Your task to perform on an android device: Open accessibility settings Image 0: 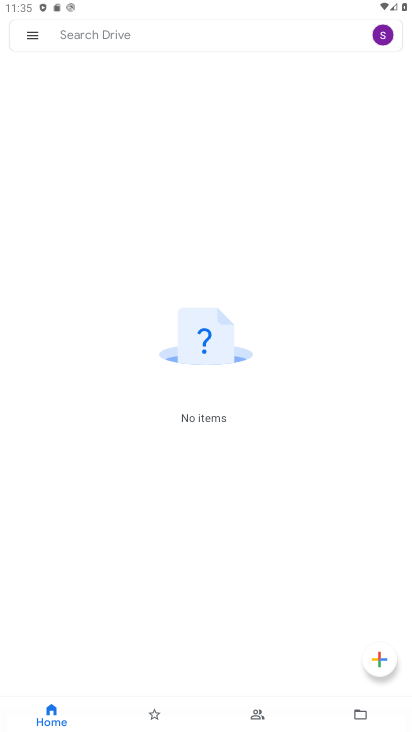
Step 0: press home button
Your task to perform on an android device: Open accessibility settings Image 1: 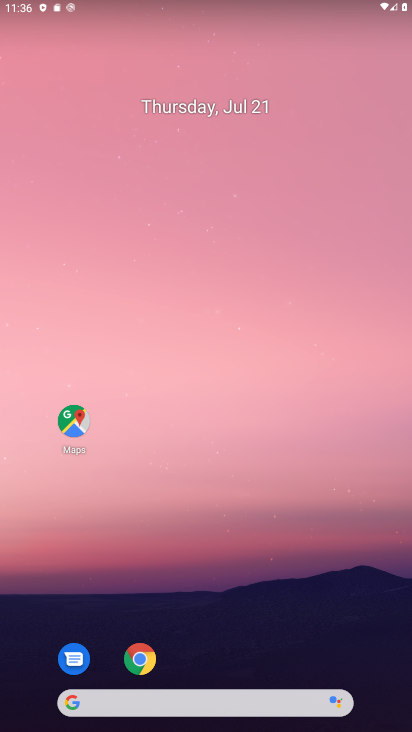
Step 1: drag from (308, 612) to (254, 116)
Your task to perform on an android device: Open accessibility settings Image 2: 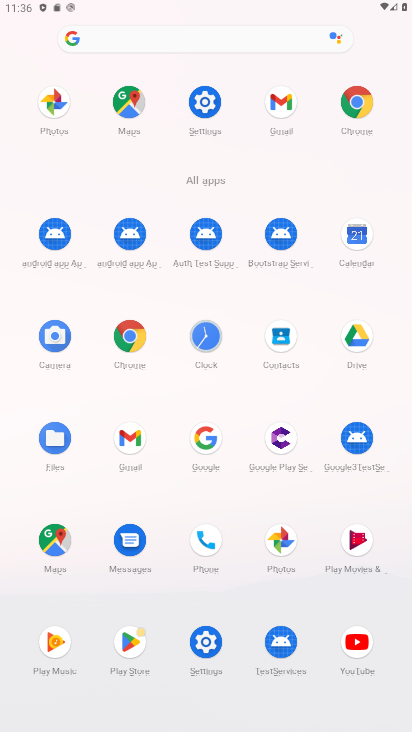
Step 2: click (218, 111)
Your task to perform on an android device: Open accessibility settings Image 3: 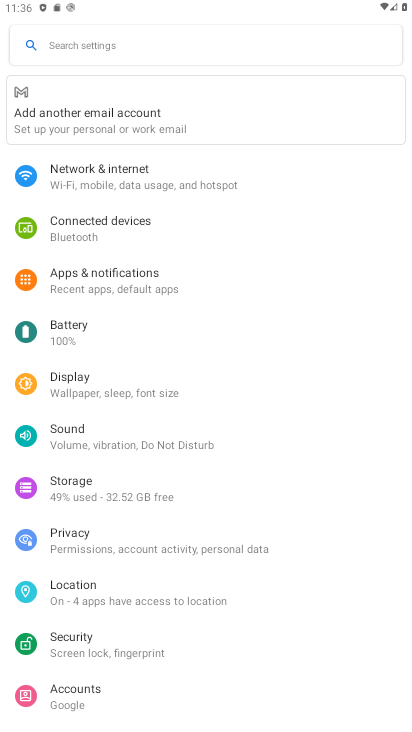
Step 3: drag from (113, 687) to (121, 308)
Your task to perform on an android device: Open accessibility settings Image 4: 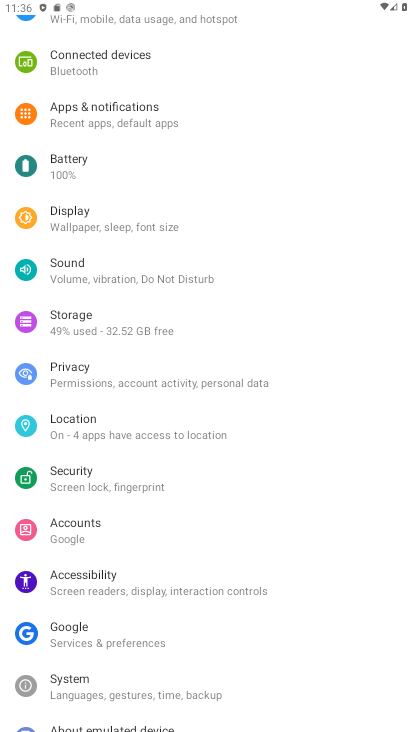
Step 4: click (123, 599)
Your task to perform on an android device: Open accessibility settings Image 5: 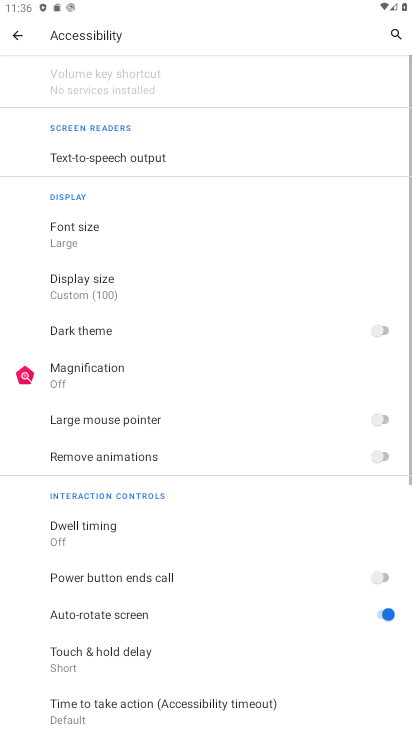
Step 5: task complete